Your task to perform on an android device: Search for Italian restaurants on Maps Image 0: 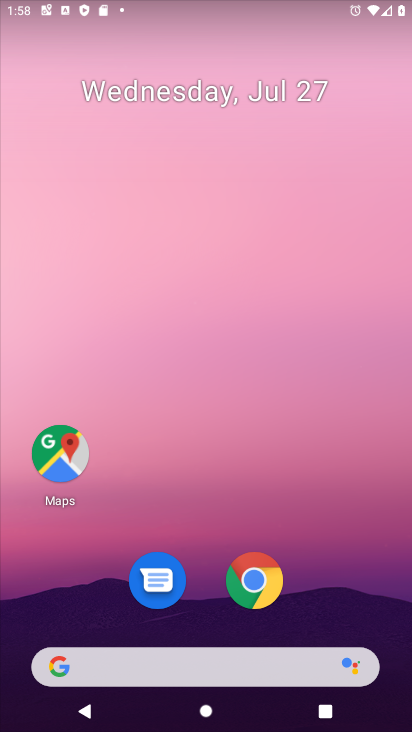
Step 0: drag from (241, 689) to (241, 259)
Your task to perform on an android device: Search for Italian restaurants on Maps Image 1: 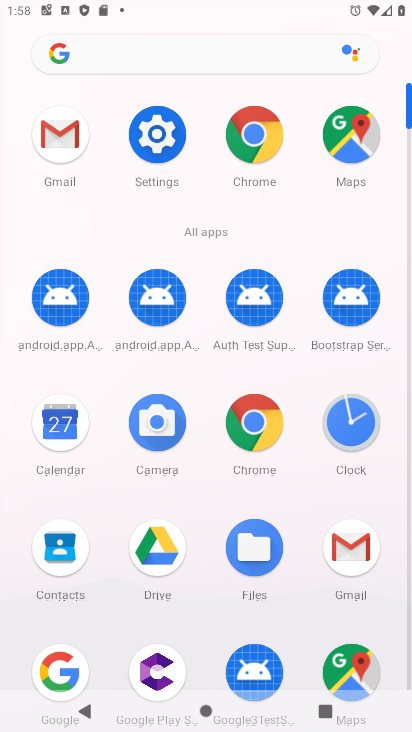
Step 1: click (359, 154)
Your task to perform on an android device: Search for Italian restaurants on Maps Image 2: 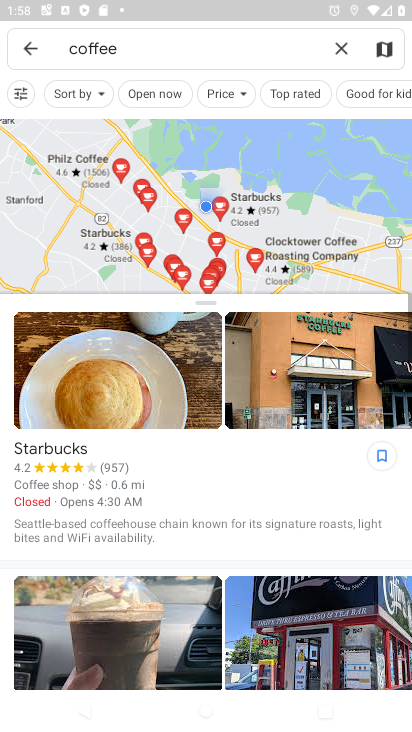
Step 2: click (343, 40)
Your task to perform on an android device: Search for Italian restaurants on Maps Image 3: 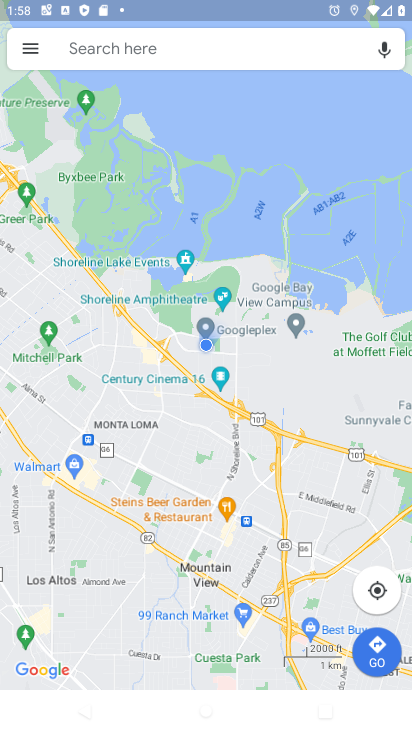
Step 3: click (127, 48)
Your task to perform on an android device: Search for Italian restaurants on Maps Image 4: 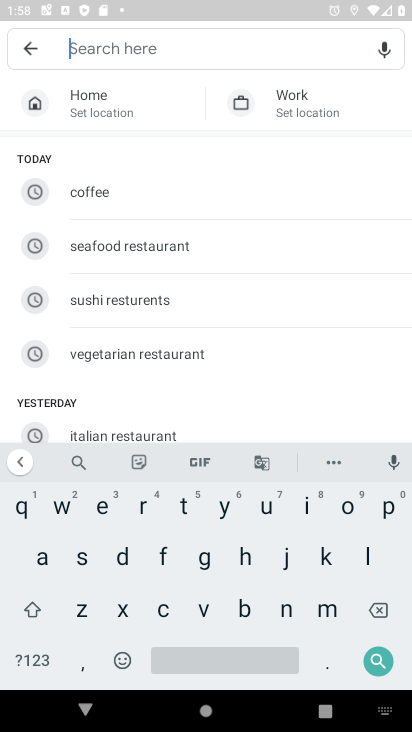
Step 4: click (136, 429)
Your task to perform on an android device: Search for Italian restaurants on Maps Image 5: 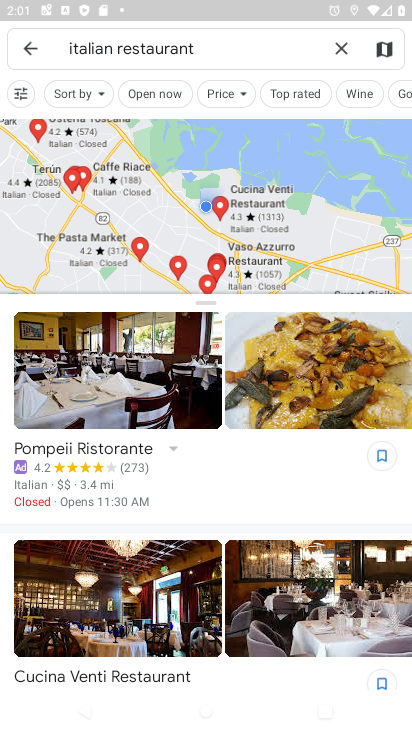
Step 5: task complete